Your task to perform on an android device: check the backup settings in the google photos Image 0: 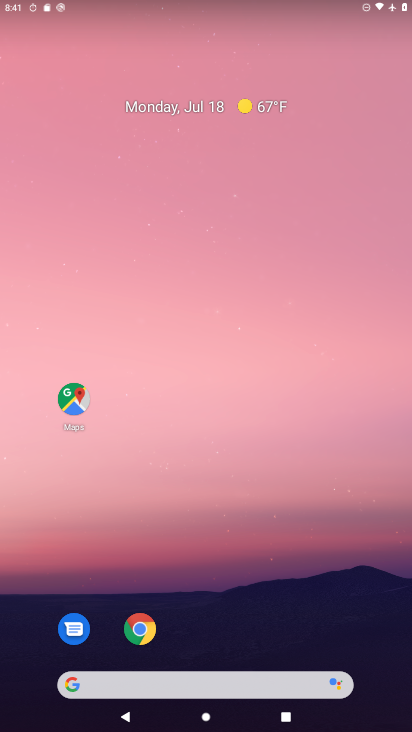
Step 0: drag from (194, 647) to (194, 105)
Your task to perform on an android device: check the backup settings in the google photos Image 1: 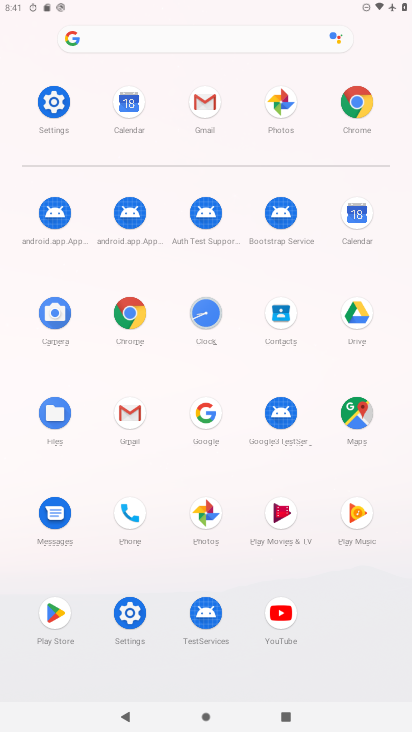
Step 1: click (201, 512)
Your task to perform on an android device: check the backup settings in the google photos Image 2: 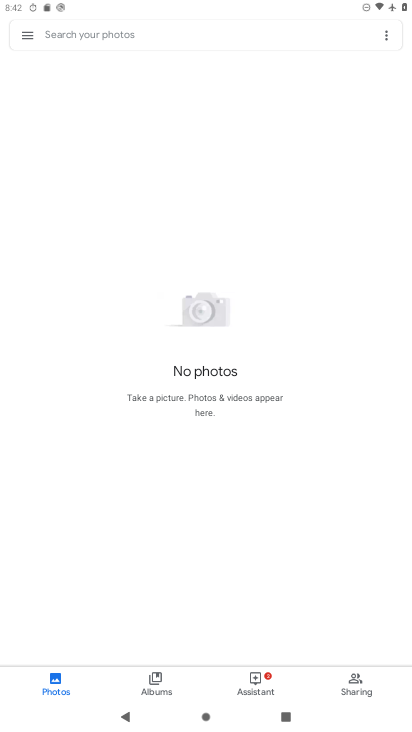
Step 2: click (14, 24)
Your task to perform on an android device: check the backup settings in the google photos Image 3: 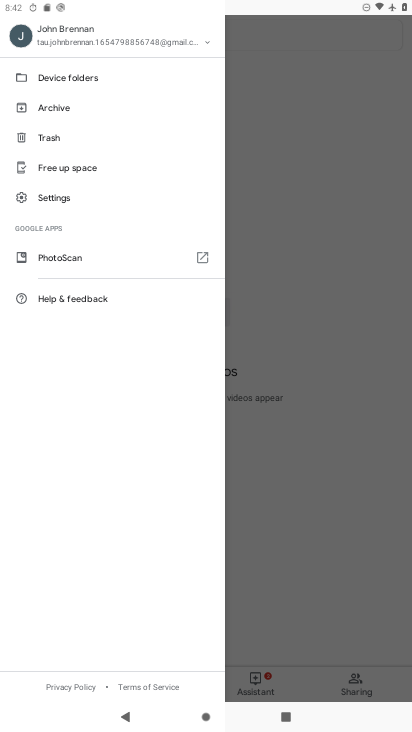
Step 3: click (54, 198)
Your task to perform on an android device: check the backup settings in the google photos Image 4: 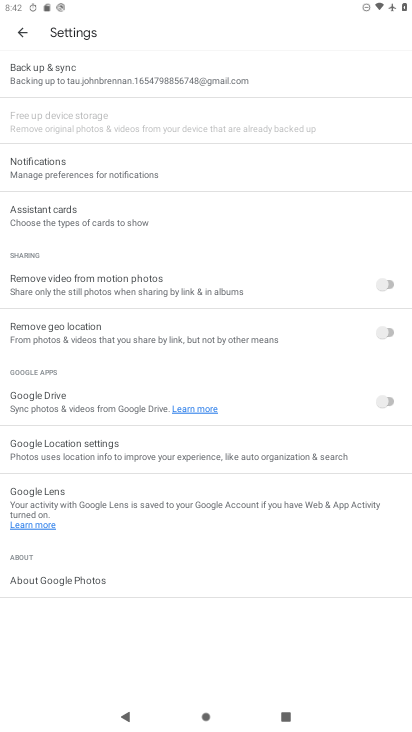
Step 4: click (51, 59)
Your task to perform on an android device: check the backup settings in the google photos Image 5: 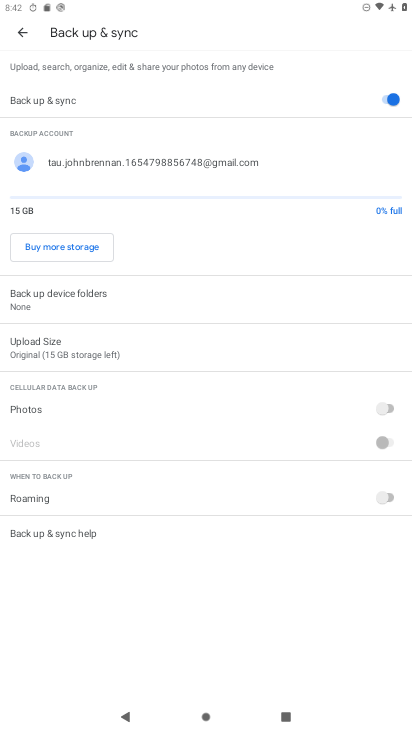
Step 5: task complete